Your task to perform on an android device: Go to Google Image 0: 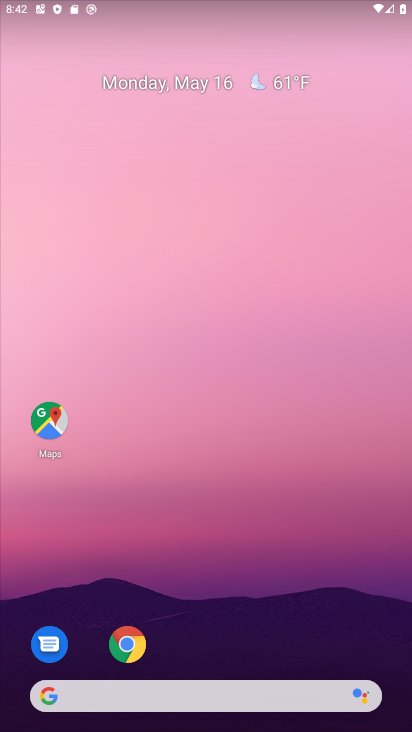
Step 0: drag from (196, 541) to (245, 145)
Your task to perform on an android device: Go to Google Image 1: 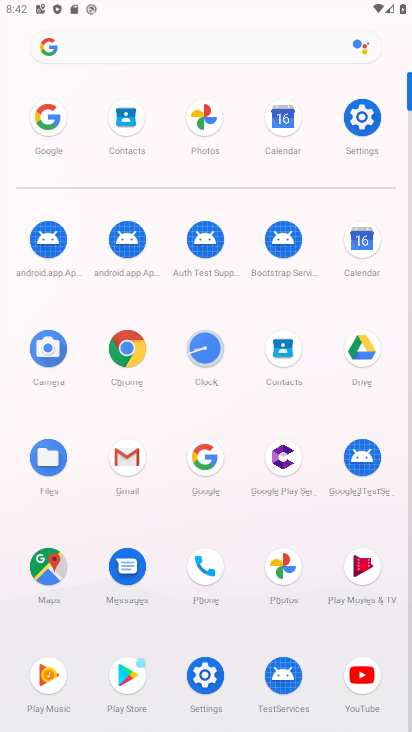
Step 1: click (48, 118)
Your task to perform on an android device: Go to Google Image 2: 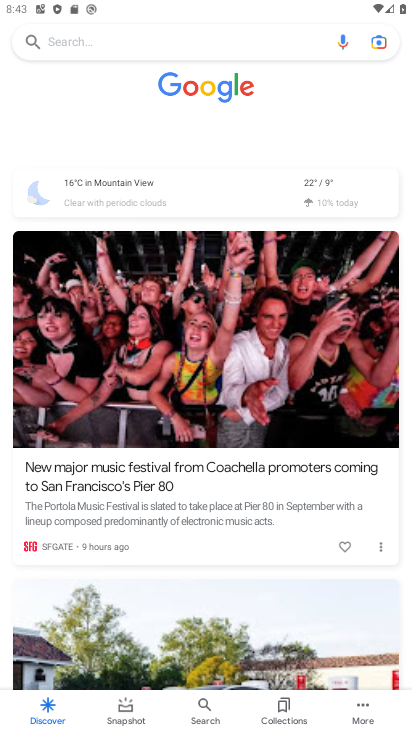
Step 2: task complete